Your task to perform on an android device: open chrome and create a bookmark for the current page Image 0: 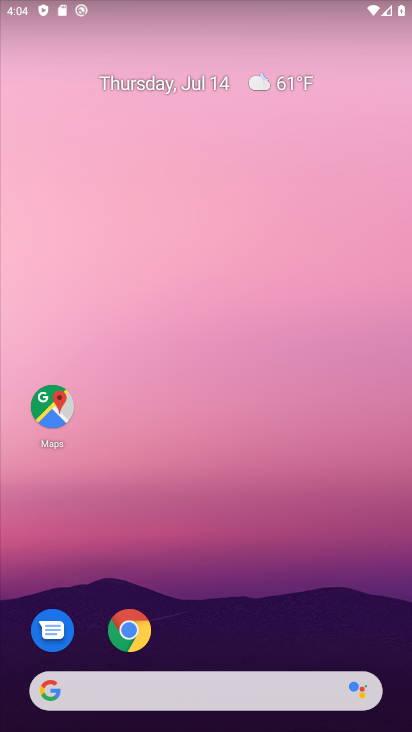
Step 0: drag from (256, 637) to (228, 174)
Your task to perform on an android device: open chrome and create a bookmark for the current page Image 1: 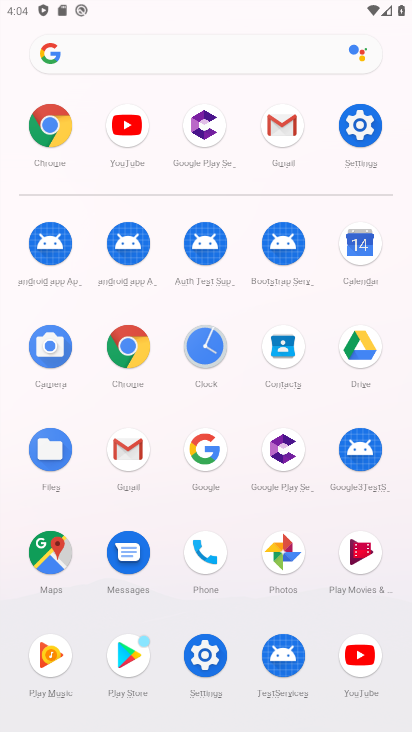
Step 1: click (51, 123)
Your task to perform on an android device: open chrome and create a bookmark for the current page Image 2: 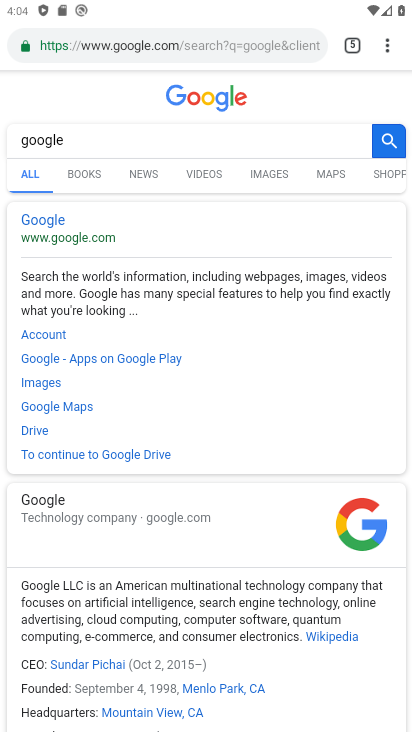
Step 2: click (389, 47)
Your task to perform on an android device: open chrome and create a bookmark for the current page Image 3: 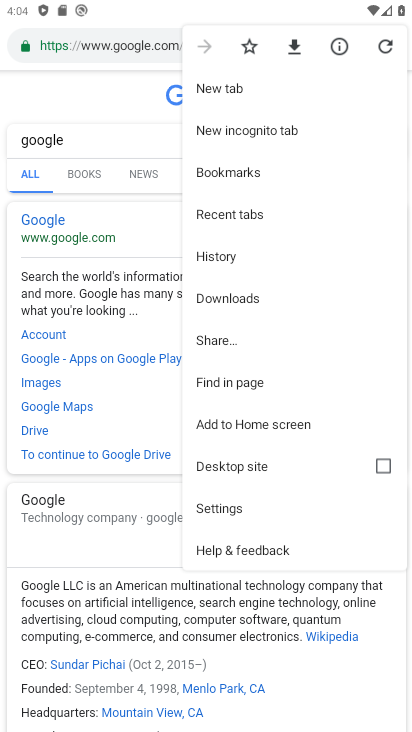
Step 3: click (247, 55)
Your task to perform on an android device: open chrome and create a bookmark for the current page Image 4: 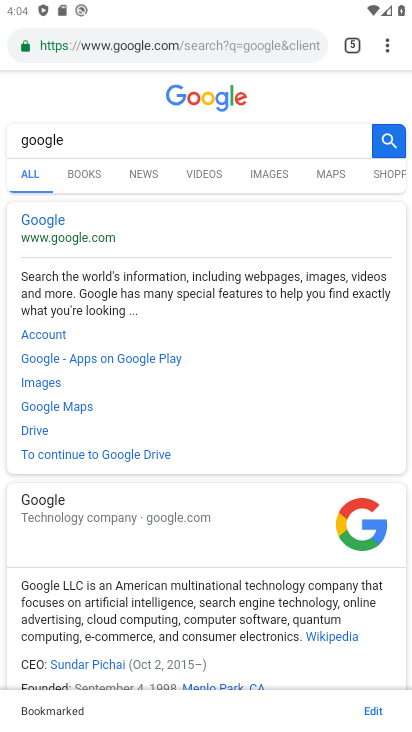
Step 4: click (388, 51)
Your task to perform on an android device: open chrome and create a bookmark for the current page Image 5: 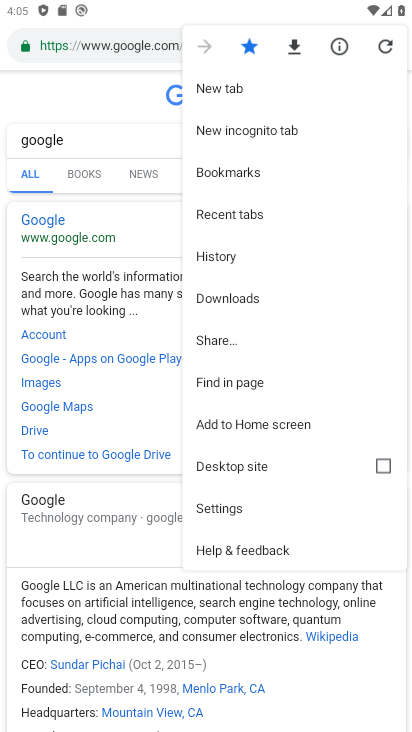
Step 5: task complete